Your task to perform on an android device: Open the Play Movies app and select the watchlist tab. Image 0: 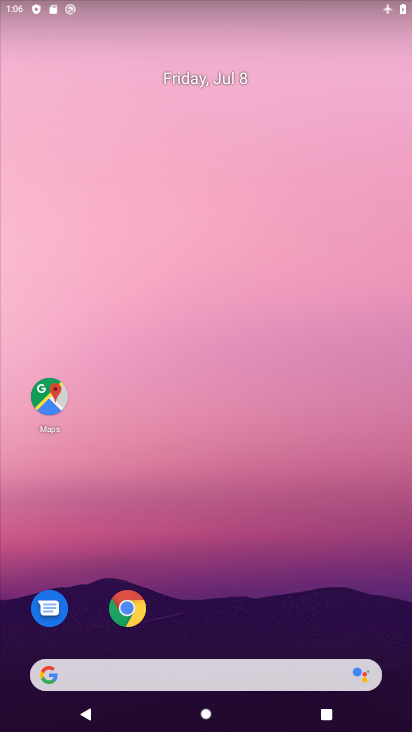
Step 0: drag from (342, 624) to (299, 125)
Your task to perform on an android device: Open the Play Movies app and select the watchlist tab. Image 1: 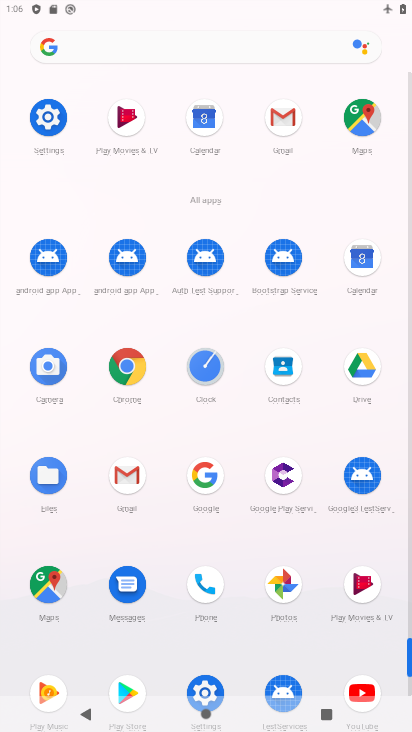
Step 1: click (366, 582)
Your task to perform on an android device: Open the Play Movies app and select the watchlist tab. Image 2: 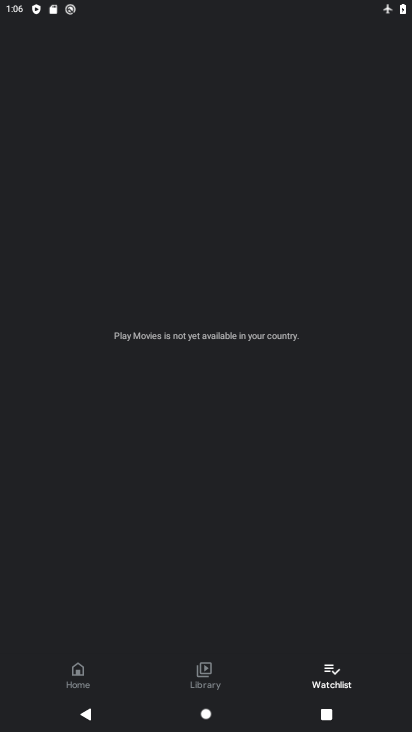
Step 2: task complete